Your task to perform on an android device: Go to accessibility settings Image 0: 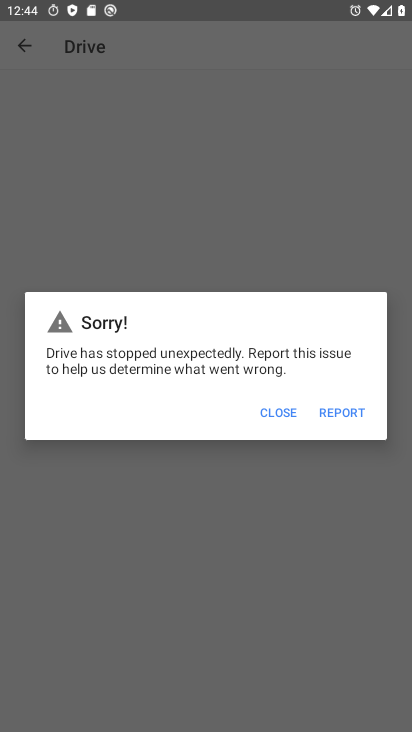
Step 0: press home button
Your task to perform on an android device: Go to accessibility settings Image 1: 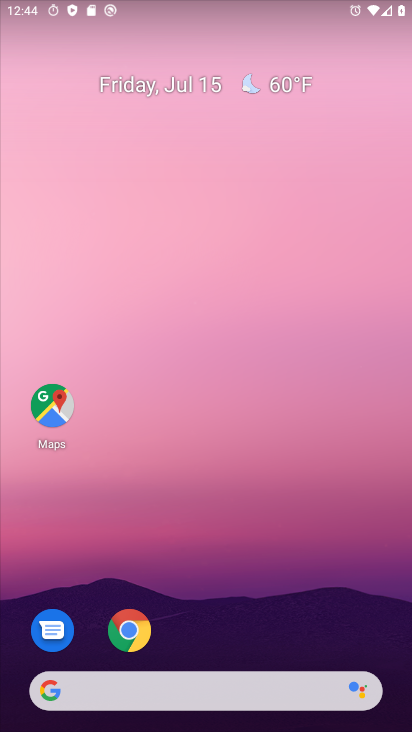
Step 1: drag from (68, 87) to (227, 73)
Your task to perform on an android device: Go to accessibility settings Image 2: 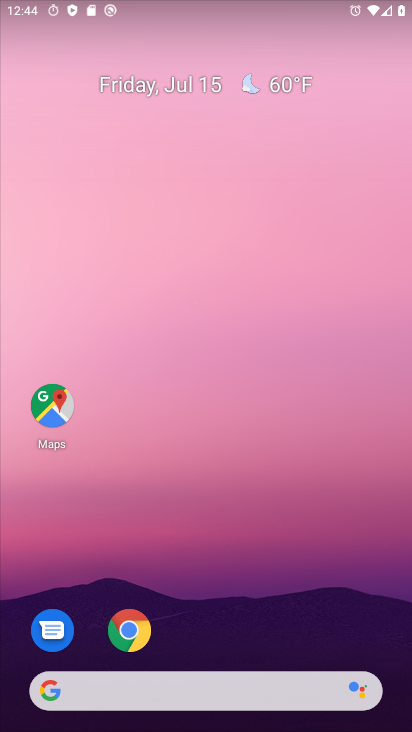
Step 2: drag from (214, 570) to (219, 94)
Your task to perform on an android device: Go to accessibility settings Image 3: 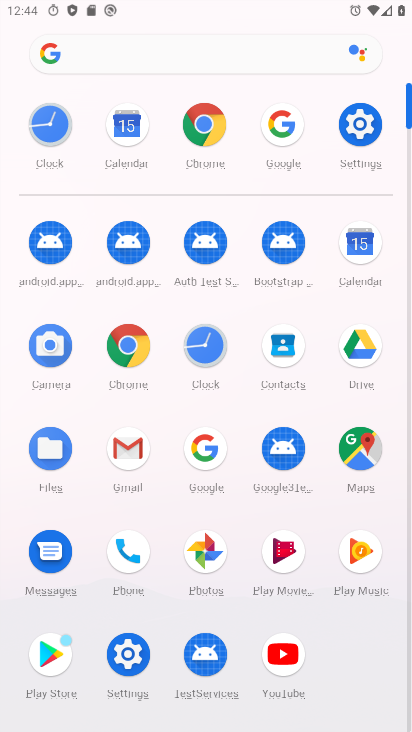
Step 3: click (362, 126)
Your task to perform on an android device: Go to accessibility settings Image 4: 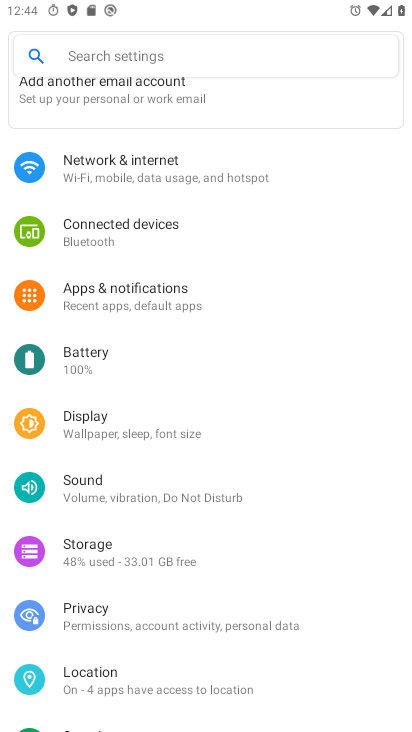
Step 4: drag from (109, 608) to (122, 342)
Your task to perform on an android device: Go to accessibility settings Image 5: 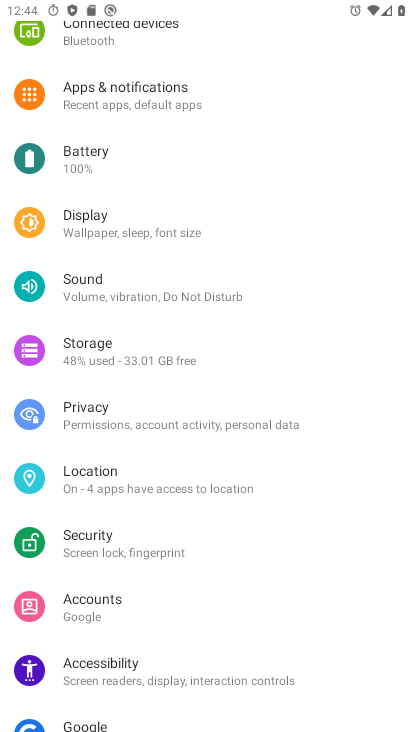
Step 5: click (118, 673)
Your task to perform on an android device: Go to accessibility settings Image 6: 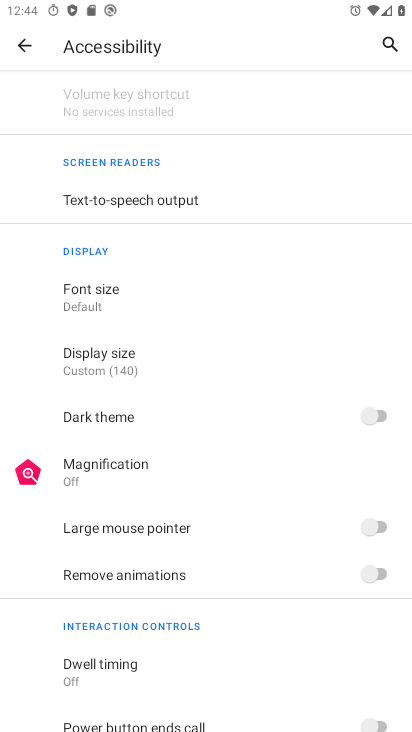
Step 6: task complete